Your task to perform on an android device: Open accessibility settings Image 0: 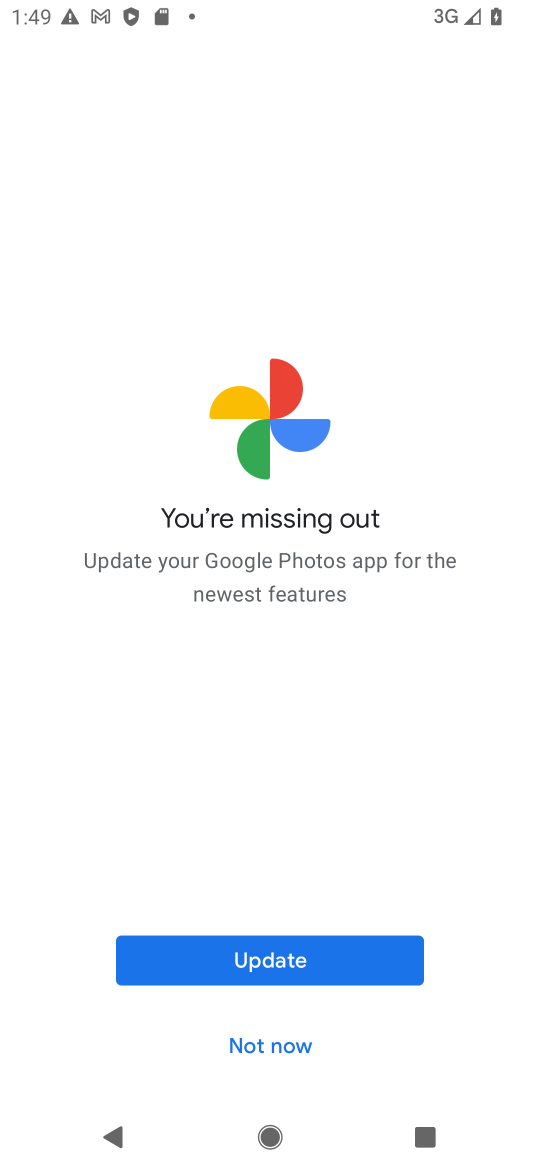
Step 0: press back button
Your task to perform on an android device: Open accessibility settings Image 1: 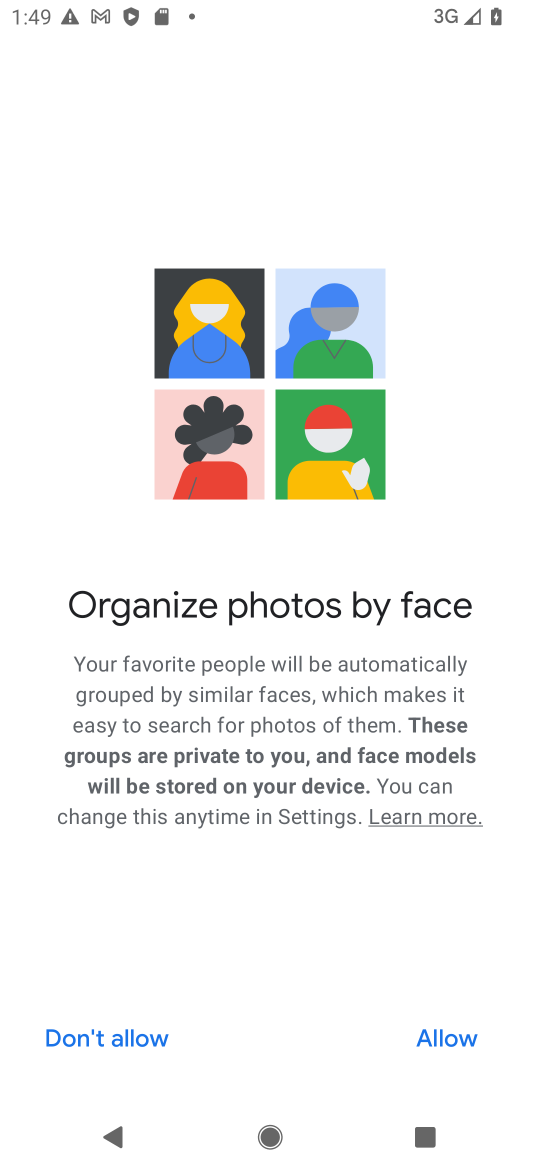
Step 1: press home button
Your task to perform on an android device: Open accessibility settings Image 2: 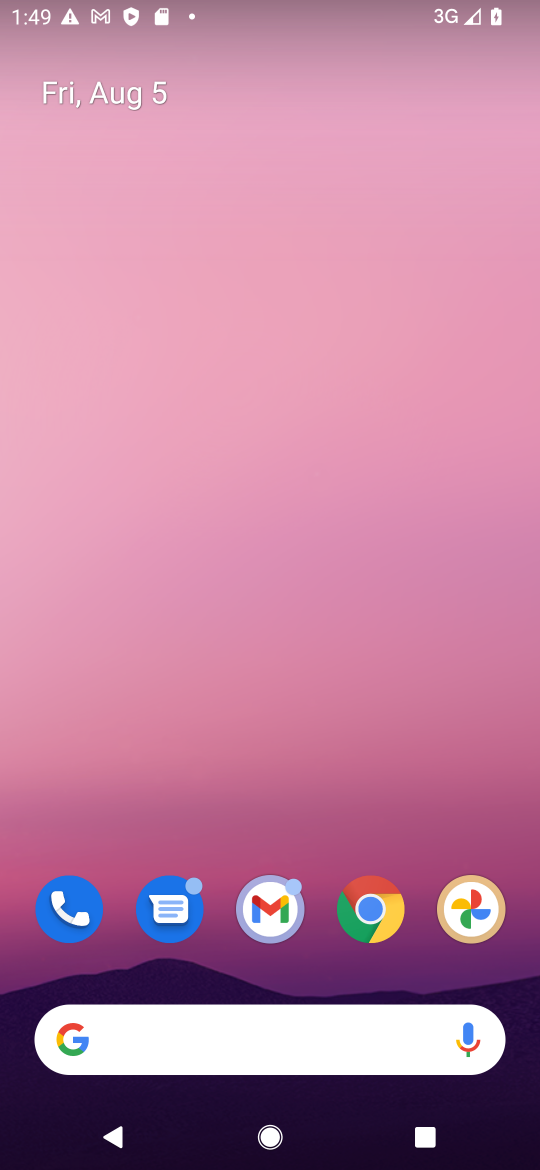
Step 2: drag from (327, 829) to (251, 80)
Your task to perform on an android device: Open accessibility settings Image 3: 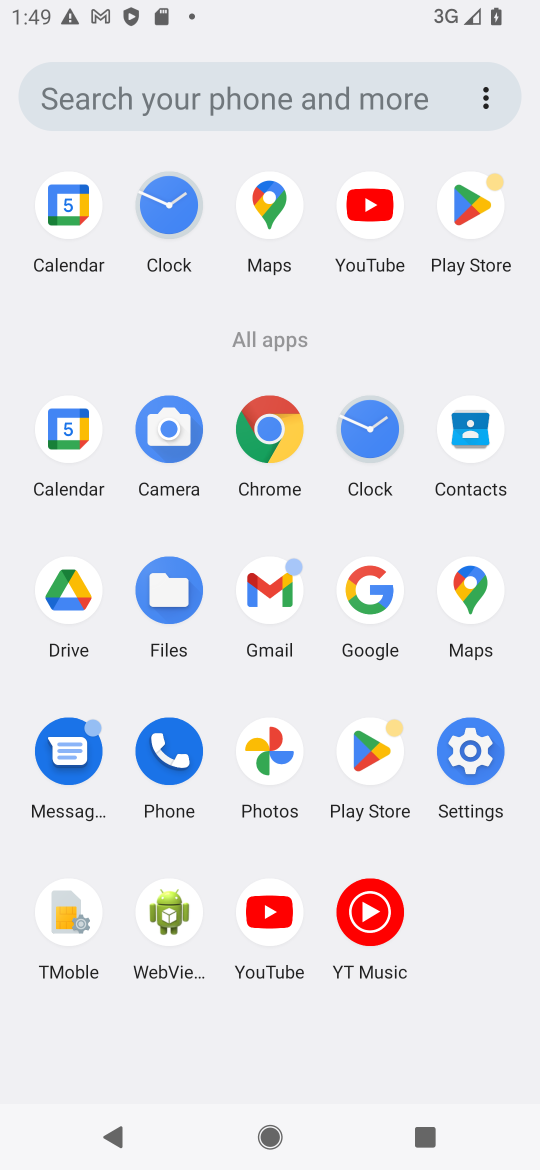
Step 3: click (476, 740)
Your task to perform on an android device: Open accessibility settings Image 4: 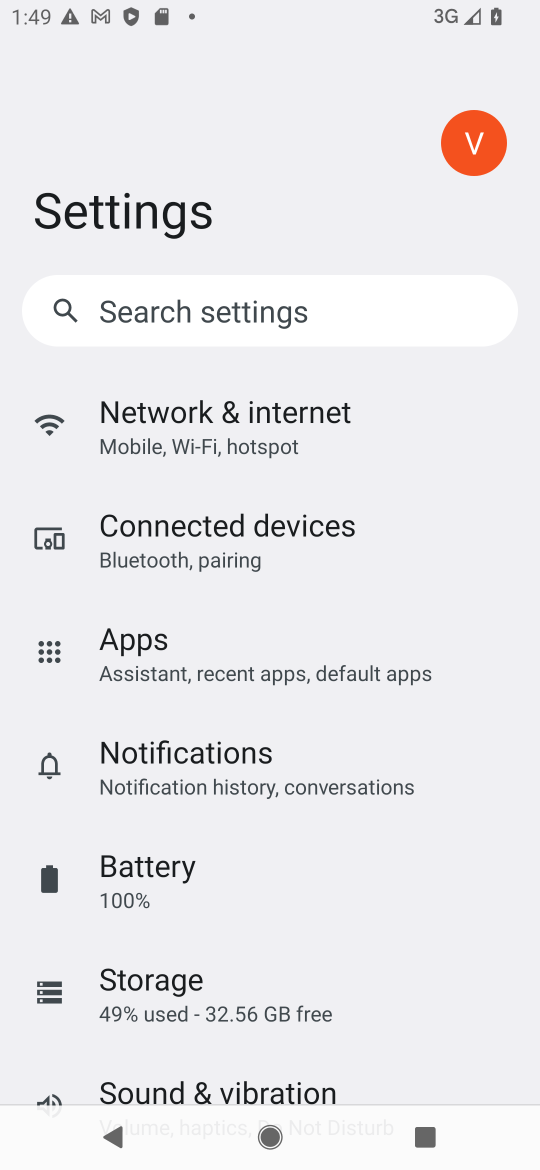
Step 4: drag from (369, 957) to (363, 342)
Your task to perform on an android device: Open accessibility settings Image 5: 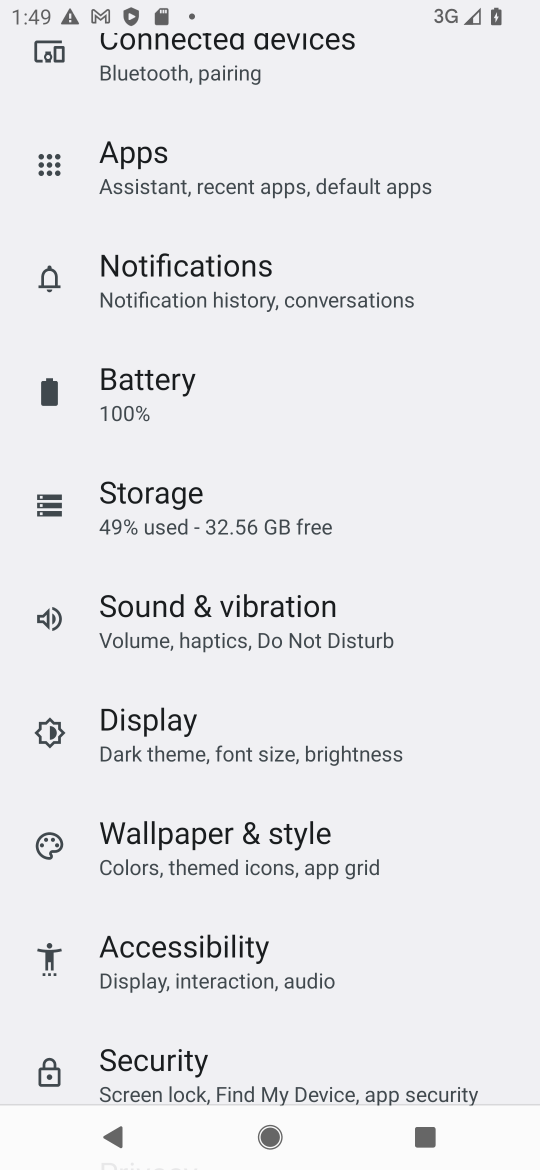
Step 5: click (198, 939)
Your task to perform on an android device: Open accessibility settings Image 6: 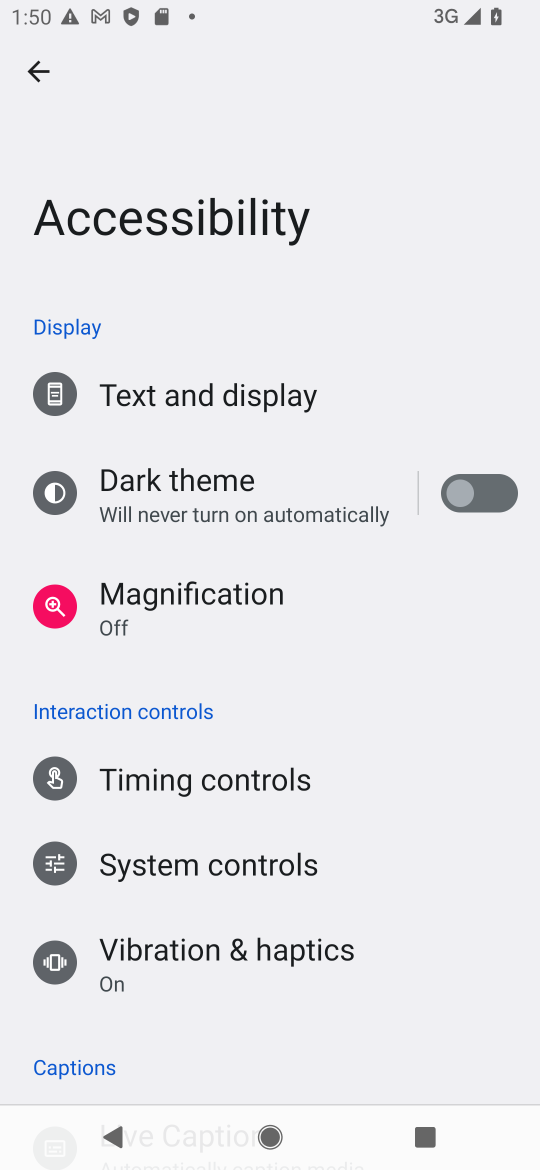
Step 6: task complete